Your task to perform on an android device: Is it going to rain tomorrow? Image 0: 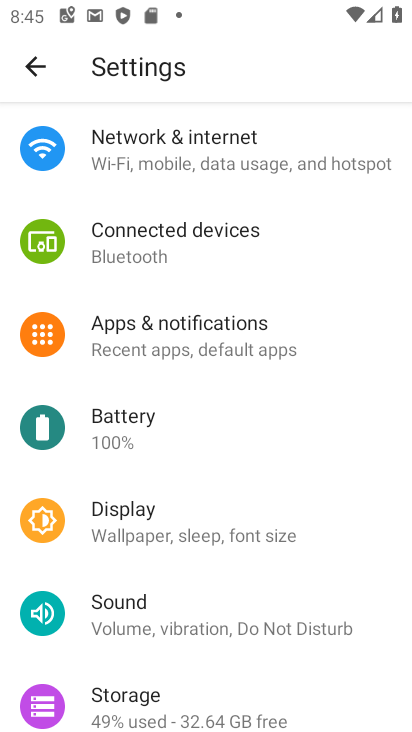
Step 0: press home button
Your task to perform on an android device: Is it going to rain tomorrow? Image 1: 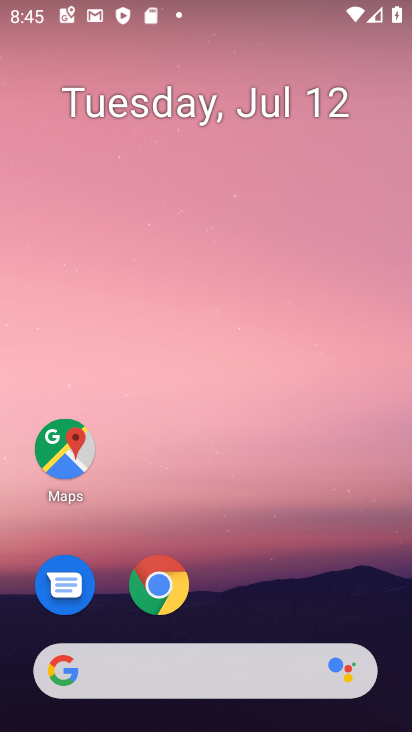
Step 1: drag from (243, 579) to (256, 92)
Your task to perform on an android device: Is it going to rain tomorrow? Image 2: 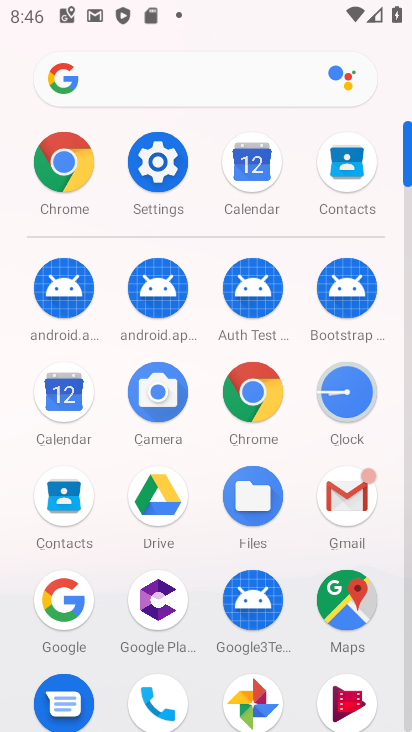
Step 2: click (248, 87)
Your task to perform on an android device: Is it going to rain tomorrow? Image 3: 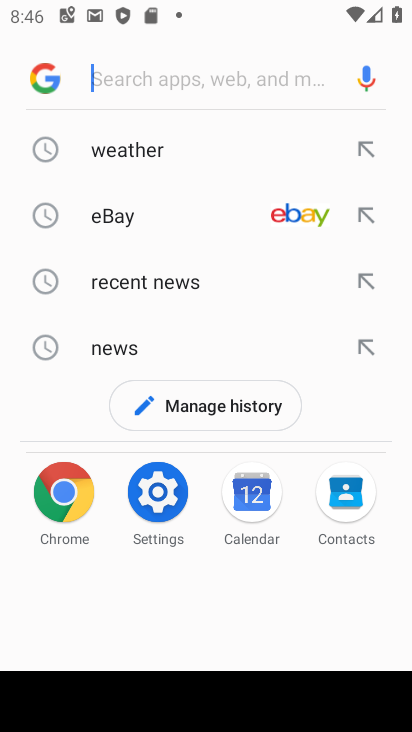
Step 3: click (151, 145)
Your task to perform on an android device: Is it going to rain tomorrow? Image 4: 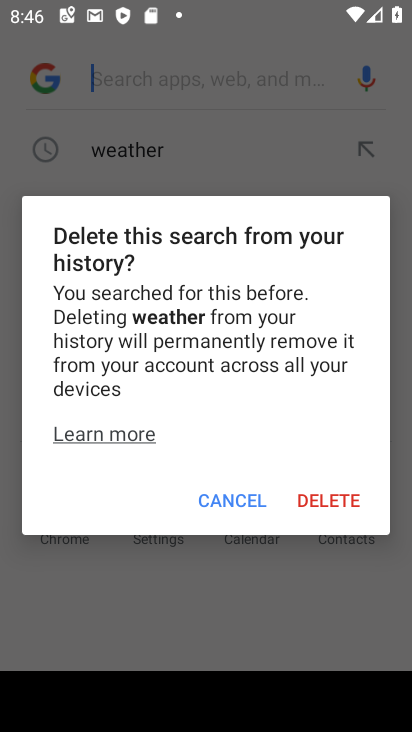
Step 4: click (242, 495)
Your task to perform on an android device: Is it going to rain tomorrow? Image 5: 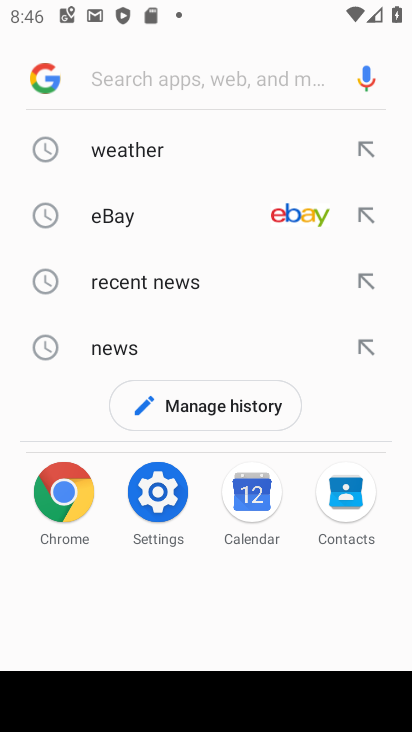
Step 5: click (48, 146)
Your task to perform on an android device: Is it going to rain tomorrow? Image 6: 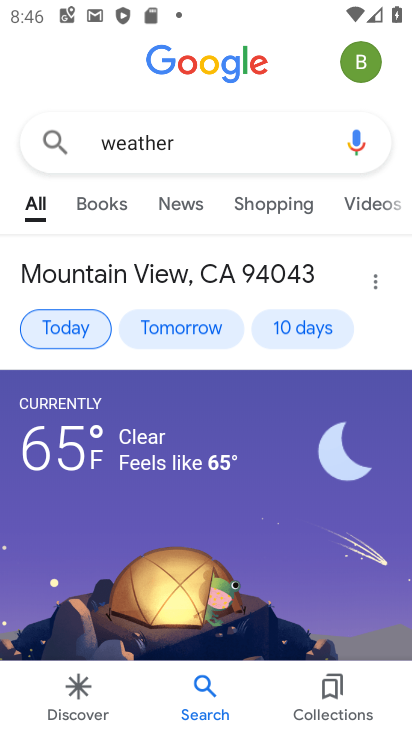
Step 6: click (91, 327)
Your task to perform on an android device: Is it going to rain tomorrow? Image 7: 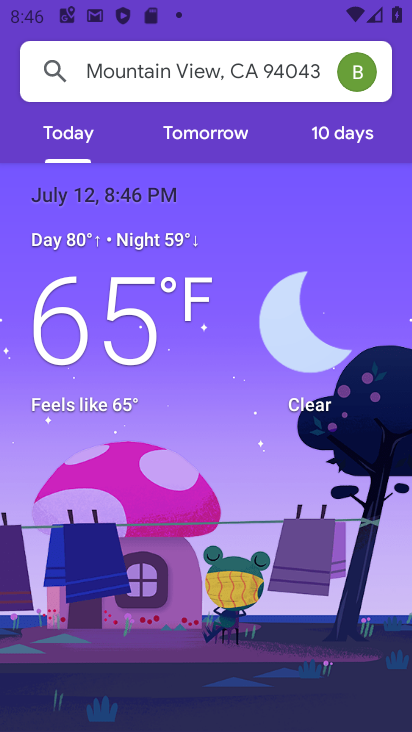
Step 7: click (220, 136)
Your task to perform on an android device: Is it going to rain tomorrow? Image 8: 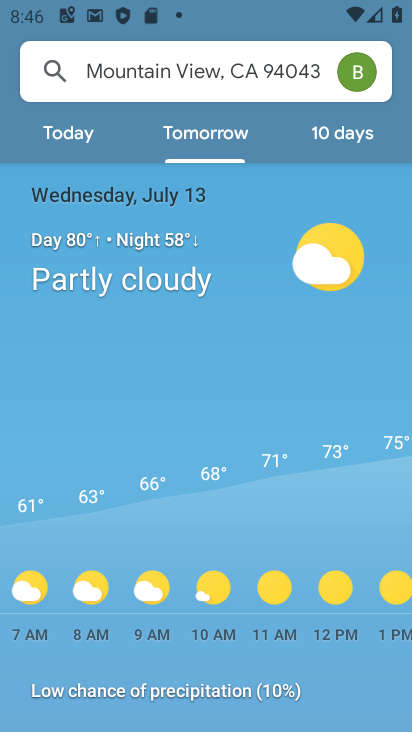
Step 8: task complete